Your task to perform on an android device: Search for Italian restaurants on Maps Image 0: 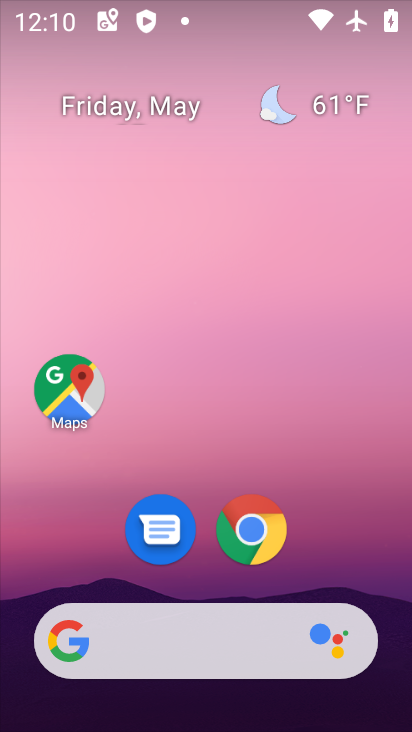
Step 0: drag from (351, 560) to (304, 35)
Your task to perform on an android device: Search for Italian restaurants on Maps Image 1: 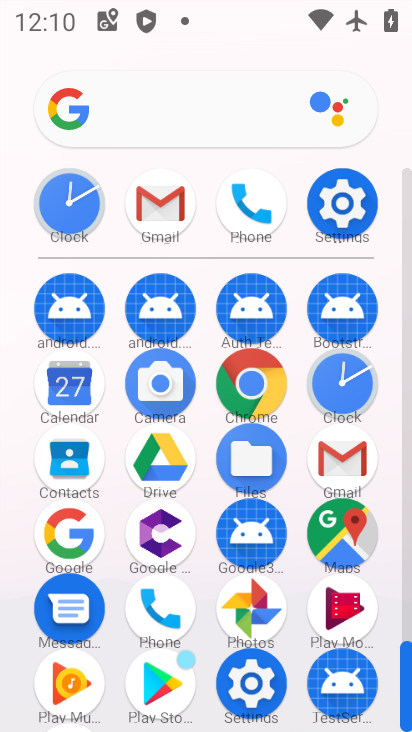
Step 1: click (335, 528)
Your task to perform on an android device: Search for Italian restaurants on Maps Image 2: 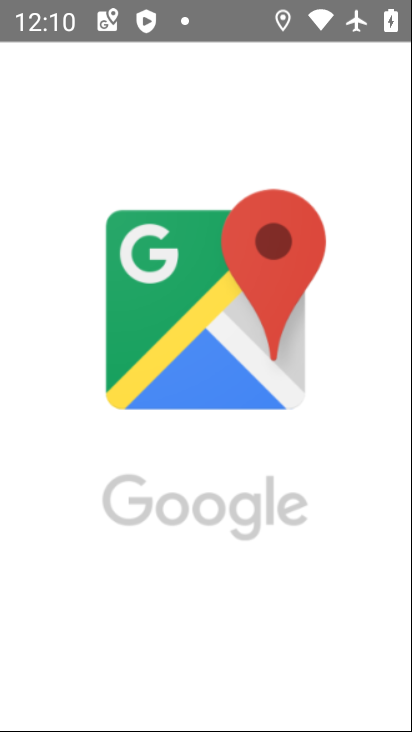
Step 2: task complete